Your task to perform on an android device: add a contact in the contacts app Image 0: 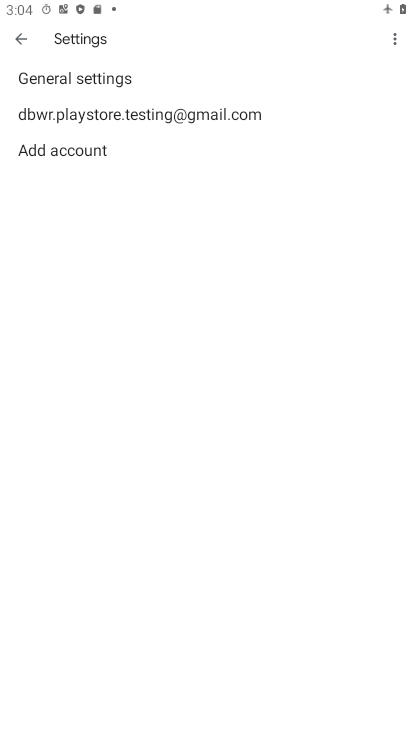
Step 0: press home button
Your task to perform on an android device: add a contact in the contacts app Image 1: 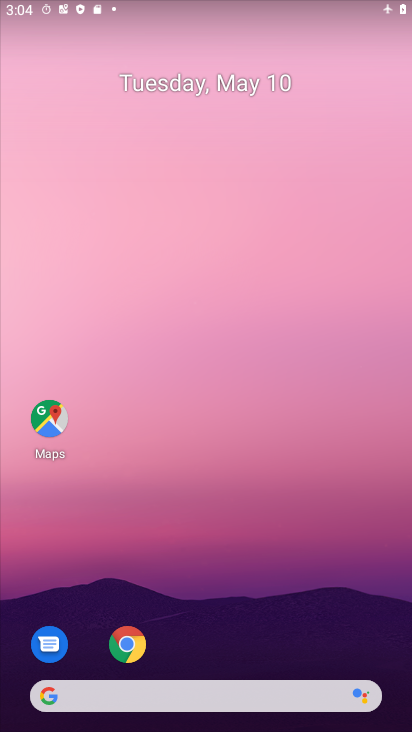
Step 1: drag from (182, 644) to (177, 229)
Your task to perform on an android device: add a contact in the contacts app Image 2: 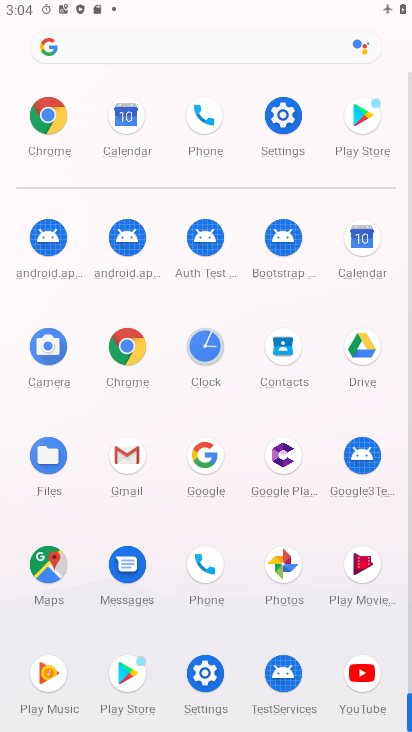
Step 2: click (287, 366)
Your task to perform on an android device: add a contact in the contacts app Image 3: 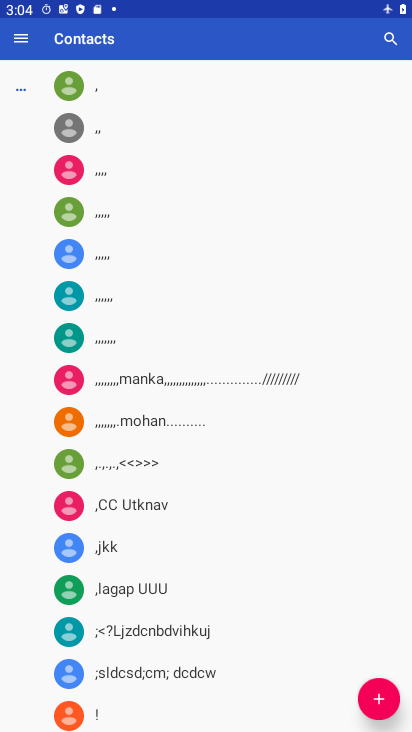
Step 3: click (384, 703)
Your task to perform on an android device: add a contact in the contacts app Image 4: 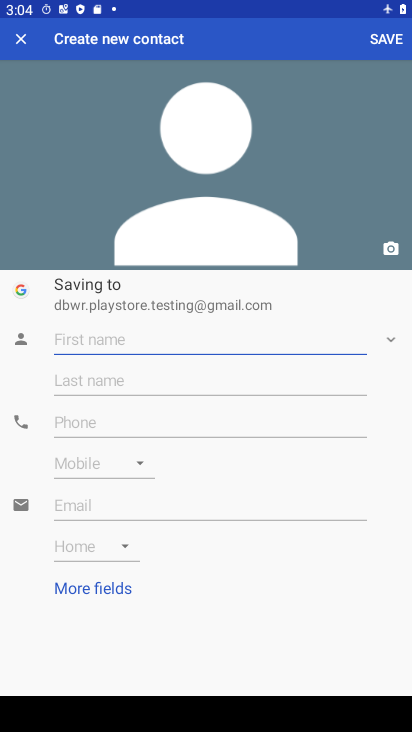
Step 4: type "ijkikhihh"
Your task to perform on an android device: add a contact in the contacts app Image 5: 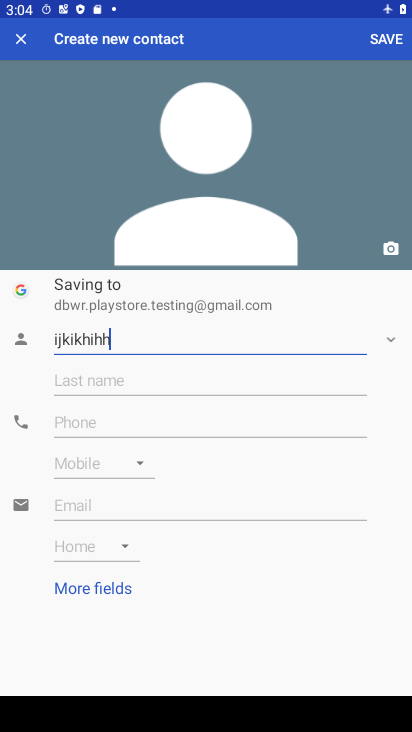
Step 5: type ""
Your task to perform on an android device: add a contact in the contacts app Image 6: 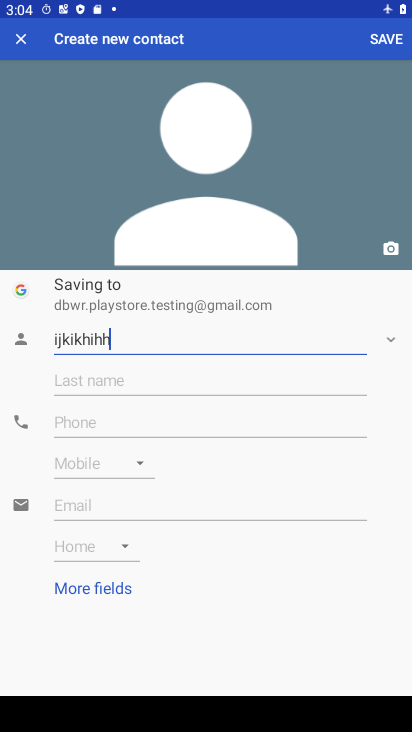
Step 6: click (391, 49)
Your task to perform on an android device: add a contact in the contacts app Image 7: 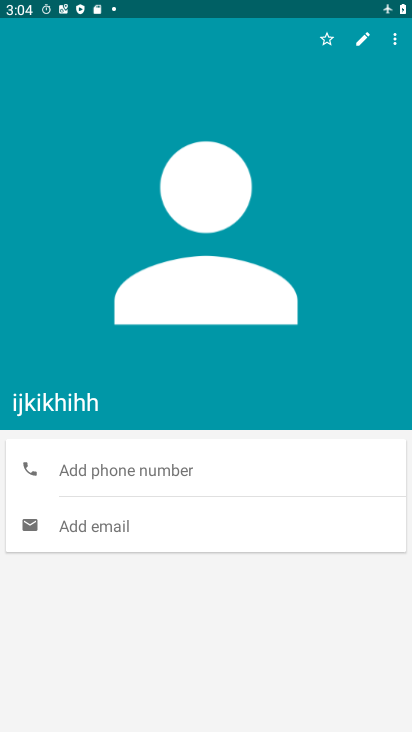
Step 7: task complete